Your task to perform on an android device: check storage Image 0: 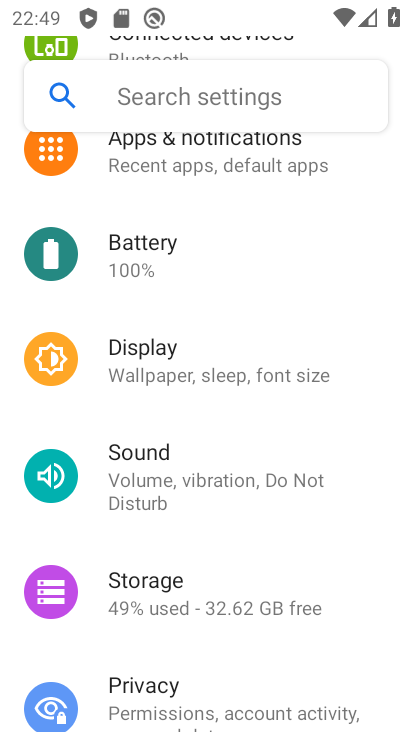
Step 0: click (137, 593)
Your task to perform on an android device: check storage Image 1: 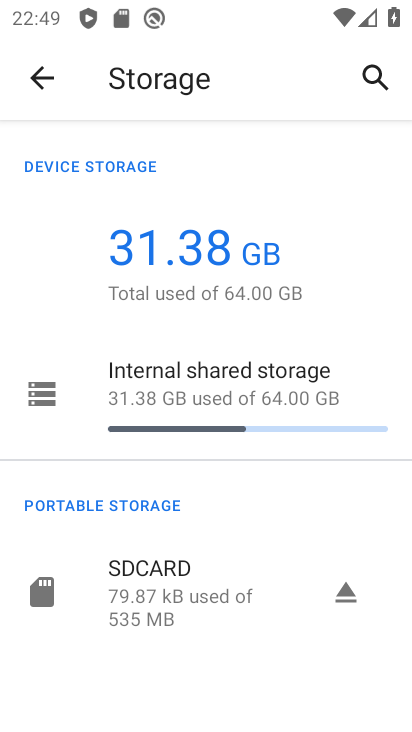
Step 1: task complete